Your task to perform on an android device: Go to location settings Image 0: 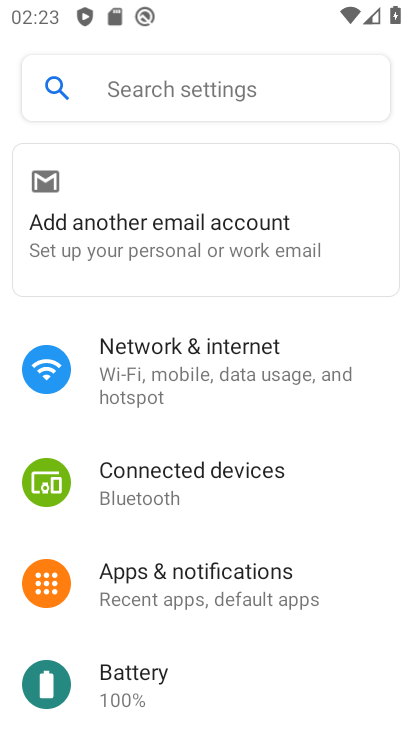
Step 0: drag from (367, 628) to (360, 137)
Your task to perform on an android device: Go to location settings Image 1: 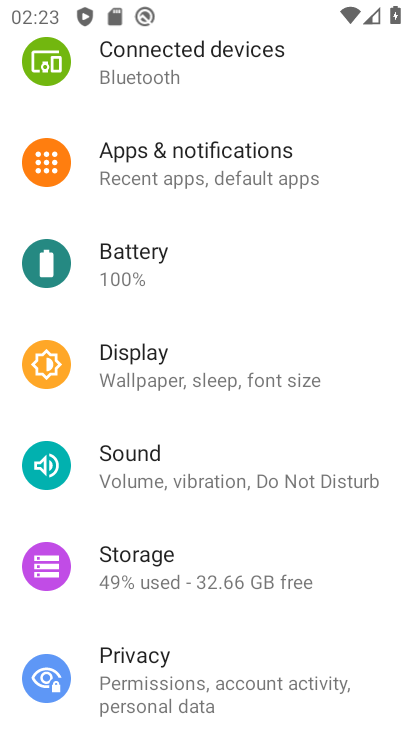
Step 1: drag from (367, 583) to (360, 240)
Your task to perform on an android device: Go to location settings Image 2: 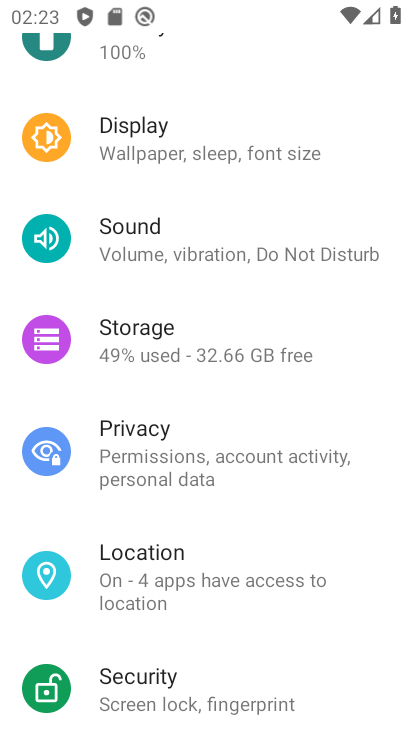
Step 2: click (120, 577)
Your task to perform on an android device: Go to location settings Image 3: 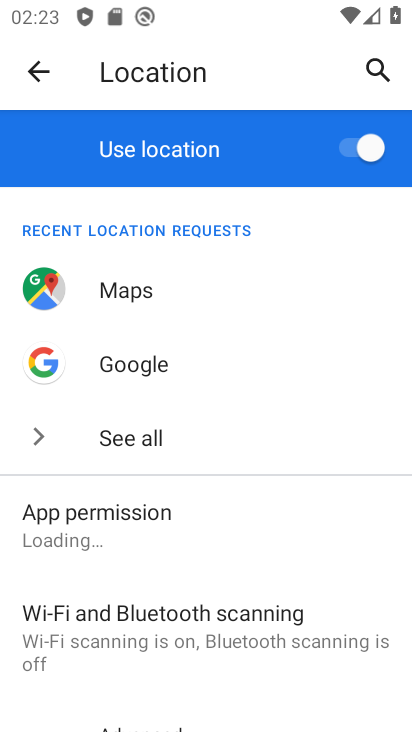
Step 3: task complete